Your task to perform on an android device: Open settings on Google Maps Image 0: 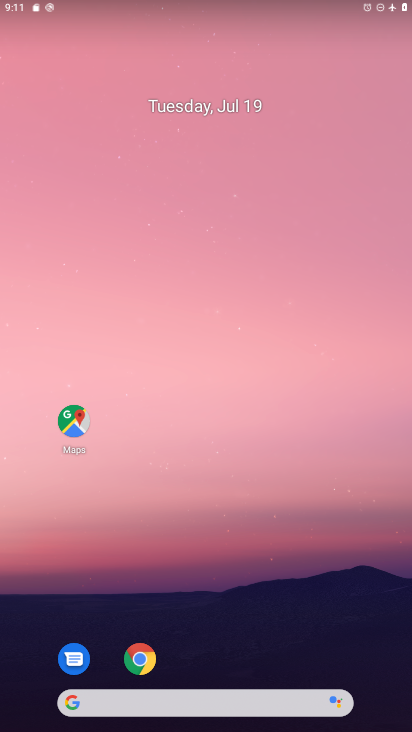
Step 0: drag from (229, 539) to (269, 283)
Your task to perform on an android device: Open settings on Google Maps Image 1: 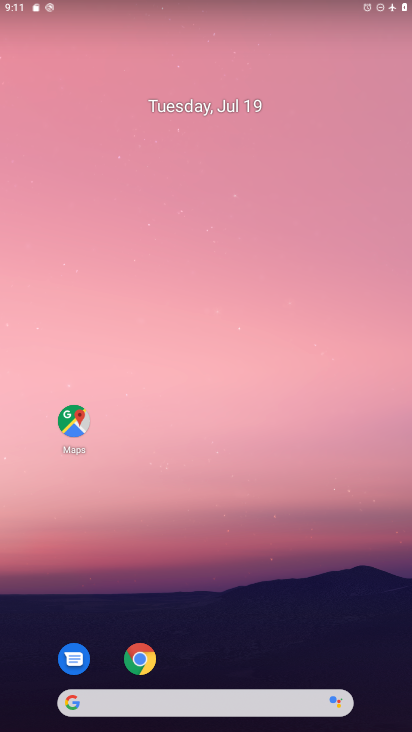
Step 1: click (69, 422)
Your task to perform on an android device: Open settings on Google Maps Image 2: 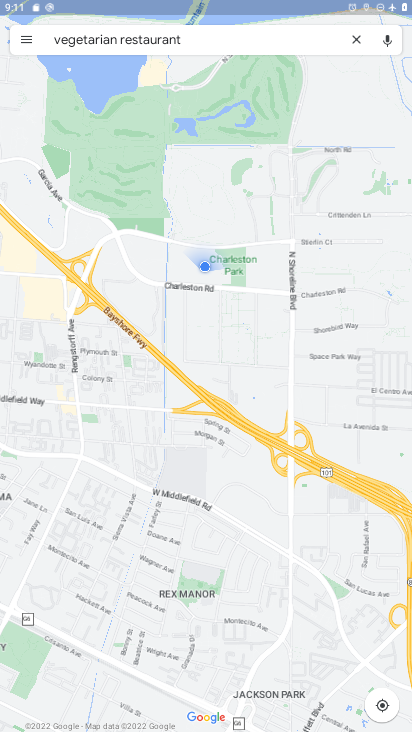
Step 2: click (26, 38)
Your task to perform on an android device: Open settings on Google Maps Image 3: 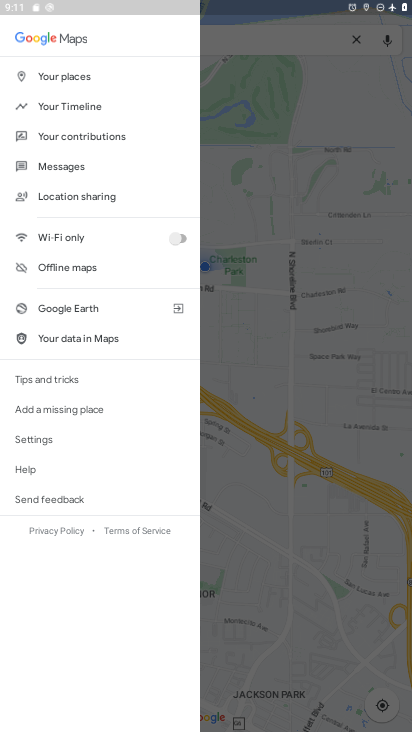
Step 3: click (44, 431)
Your task to perform on an android device: Open settings on Google Maps Image 4: 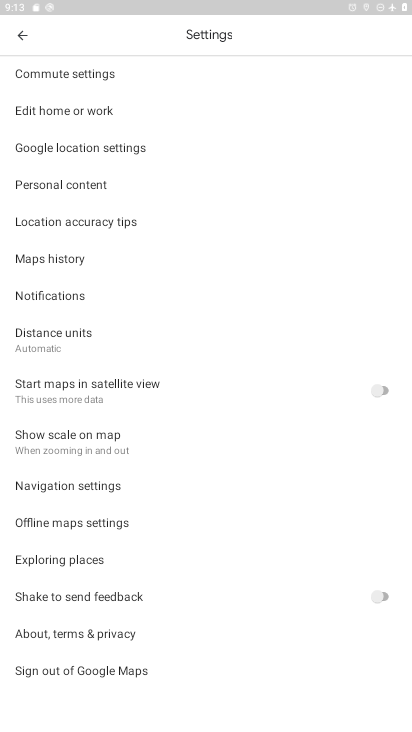
Step 4: task complete